Your task to perform on an android device: add a contact in the contacts app Image 0: 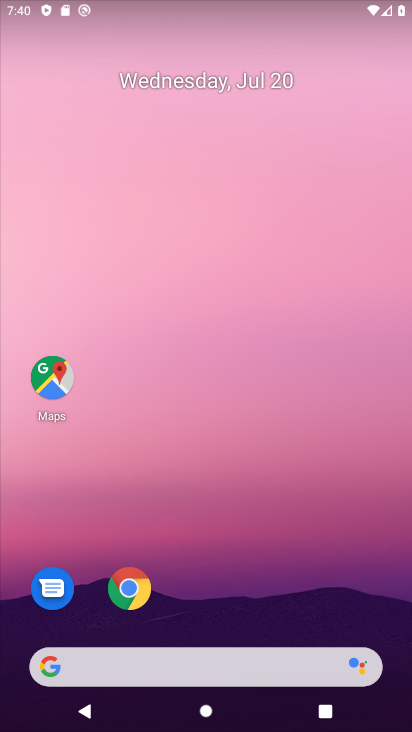
Step 0: drag from (250, 593) to (269, 364)
Your task to perform on an android device: add a contact in the contacts app Image 1: 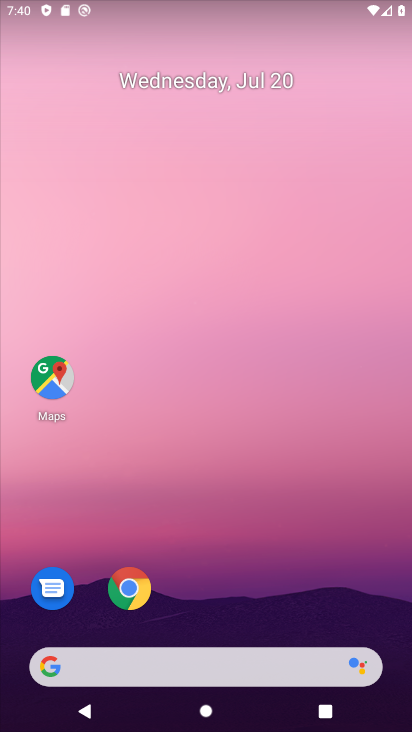
Step 1: drag from (317, 620) to (315, 502)
Your task to perform on an android device: add a contact in the contacts app Image 2: 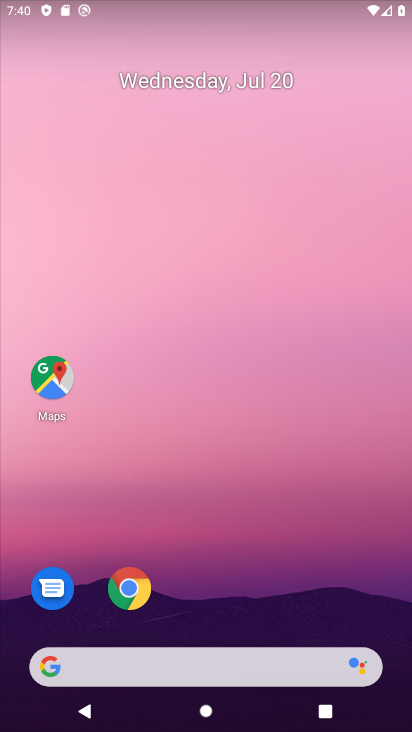
Step 2: drag from (305, 595) to (269, 26)
Your task to perform on an android device: add a contact in the contacts app Image 3: 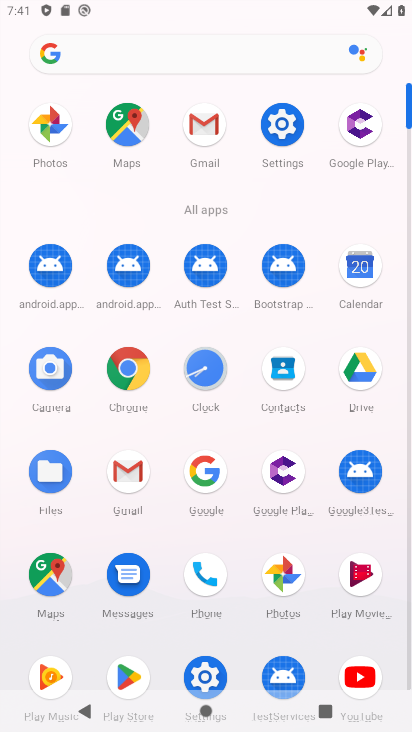
Step 3: click (276, 363)
Your task to perform on an android device: add a contact in the contacts app Image 4: 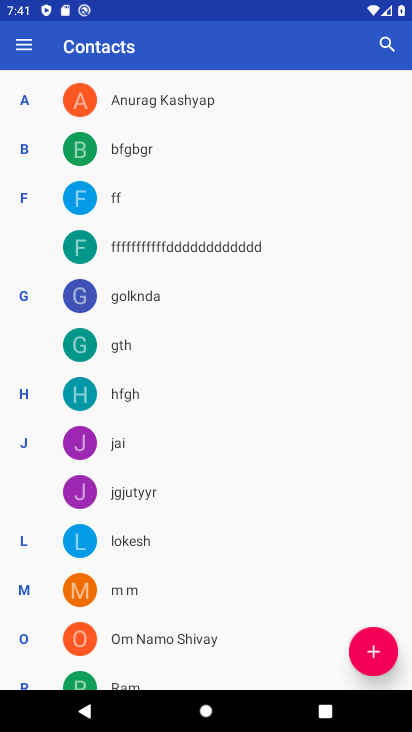
Step 4: click (365, 644)
Your task to perform on an android device: add a contact in the contacts app Image 5: 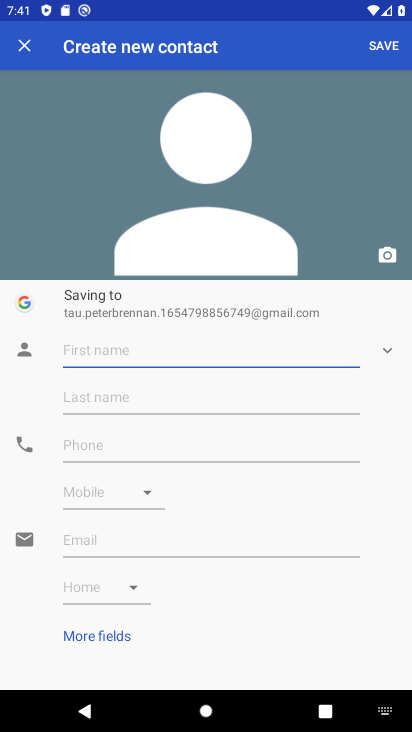
Step 5: type "mnbvcxzaqpl"
Your task to perform on an android device: add a contact in the contacts app Image 6: 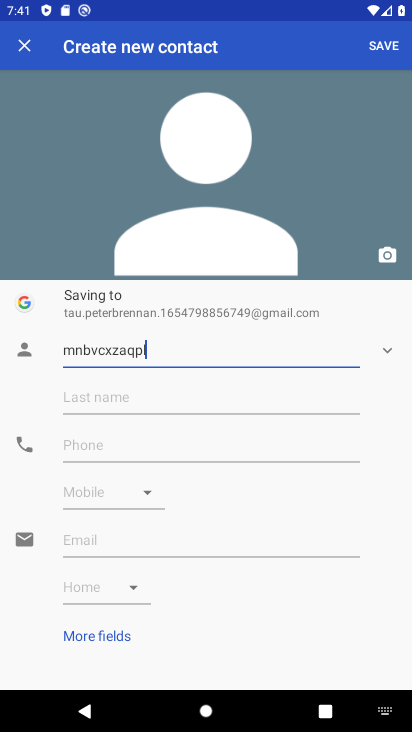
Step 6: click (83, 448)
Your task to perform on an android device: add a contact in the contacts app Image 7: 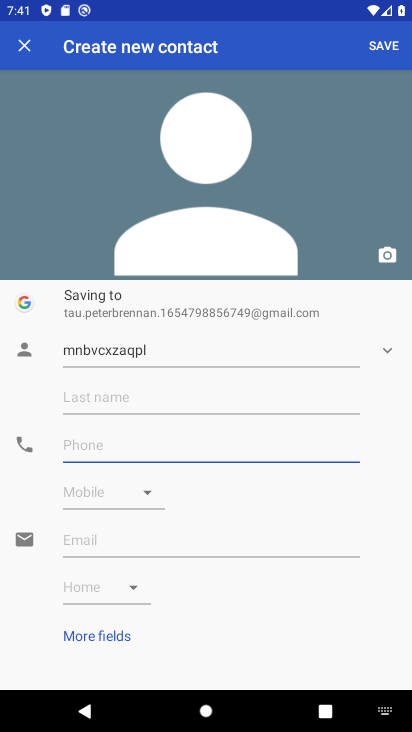
Step 7: type "9087654321"
Your task to perform on an android device: add a contact in the contacts app Image 8: 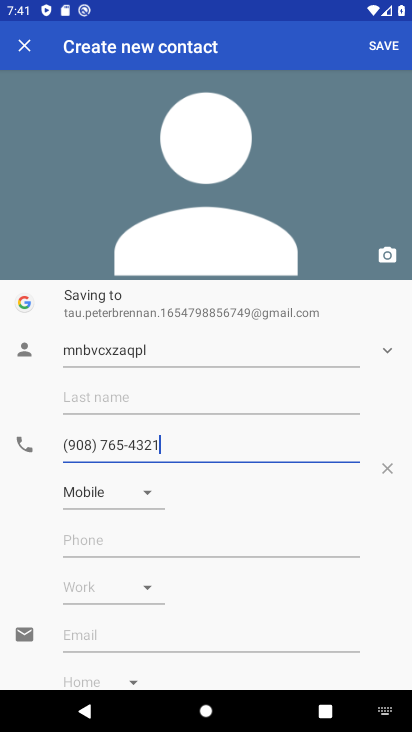
Step 8: click (371, 44)
Your task to perform on an android device: add a contact in the contacts app Image 9: 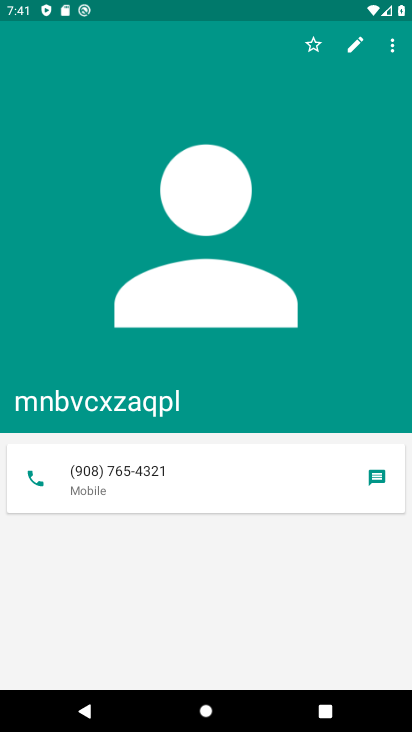
Step 9: task complete